Your task to perform on an android device: Is it going to rain tomorrow? Image 0: 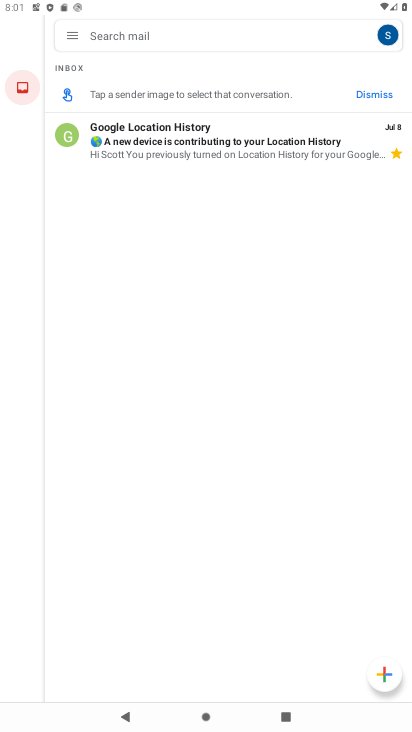
Step 0: press home button
Your task to perform on an android device: Is it going to rain tomorrow? Image 1: 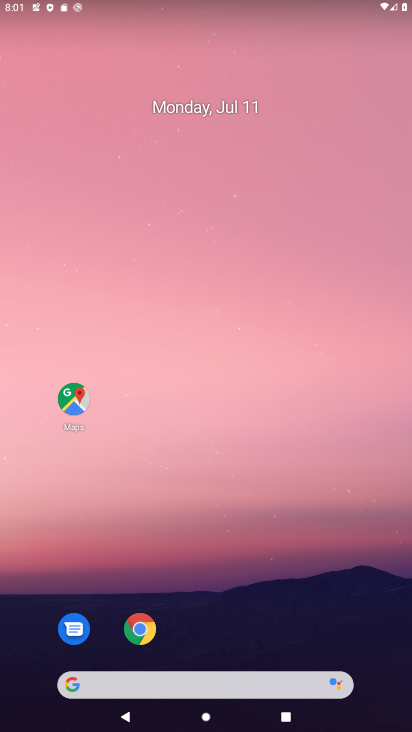
Step 1: drag from (234, 652) to (267, 149)
Your task to perform on an android device: Is it going to rain tomorrow? Image 2: 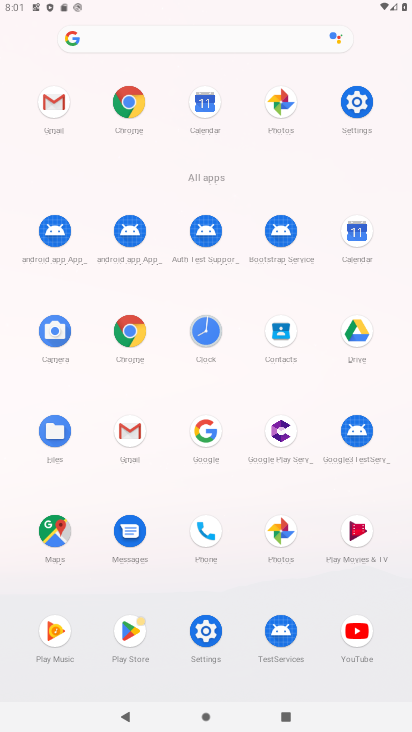
Step 2: click (204, 434)
Your task to perform on an android device: Is it going to rain tomorrow? Image 3: 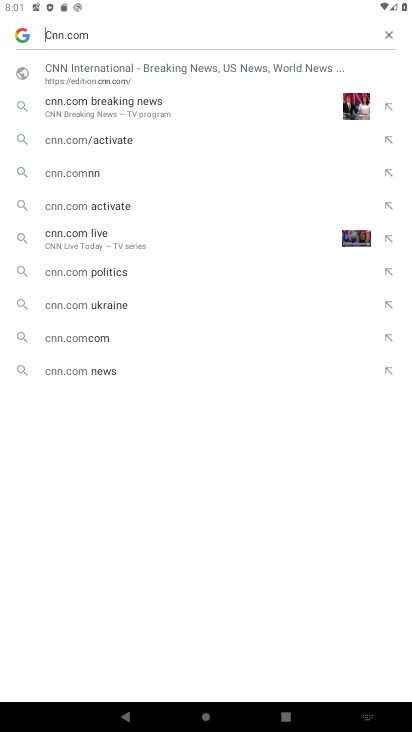
Step 3: click (392, 29)
Your task to perform on an android device: Is it going to rain tomorrow? Image 4: 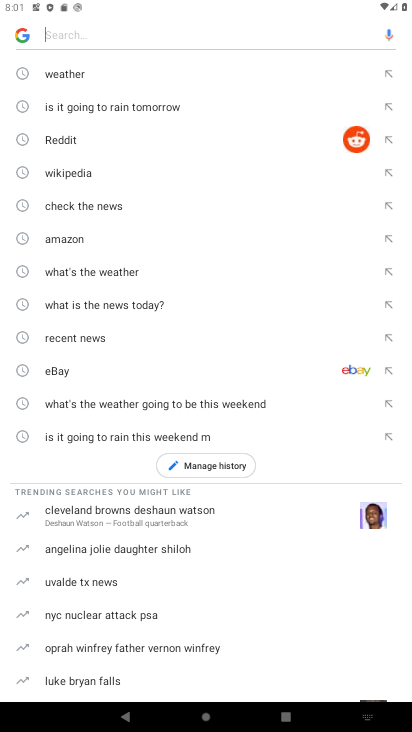
Step 4: type "Is it going to rain tomorrow?"
Your task to perform on an android device: Is it going to rain tomorrow? Image 5: 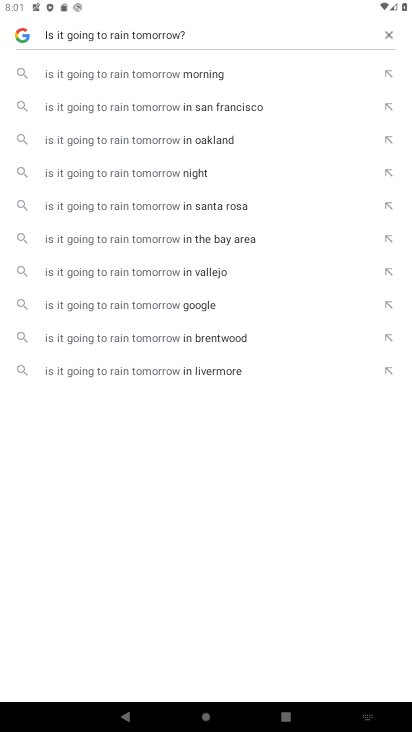
Step 5: click (386, 37)
Your task to perform on an android device: Is it going to rain tomorrow? Image 6: 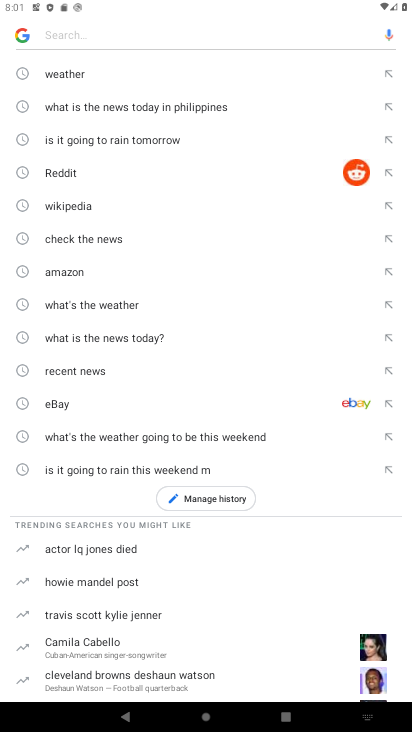
Step 6: click (140, 142)
Your task to perform on an android device: Is it going to rain tomorrow? Image 7: 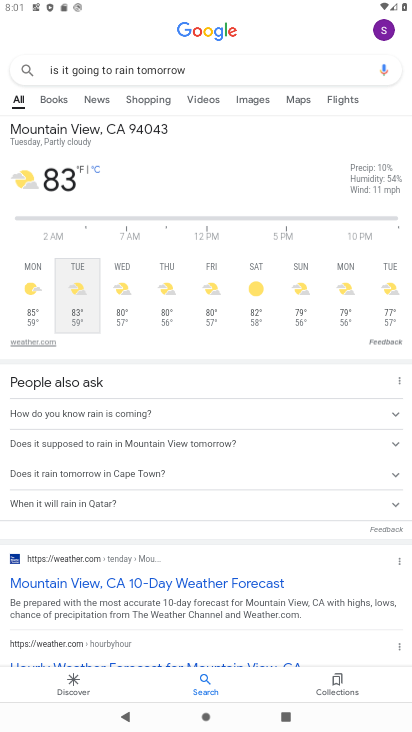
Step 7: task complete